Your task to perform on an android device: turn off smart reply in the gmail app Image 0: 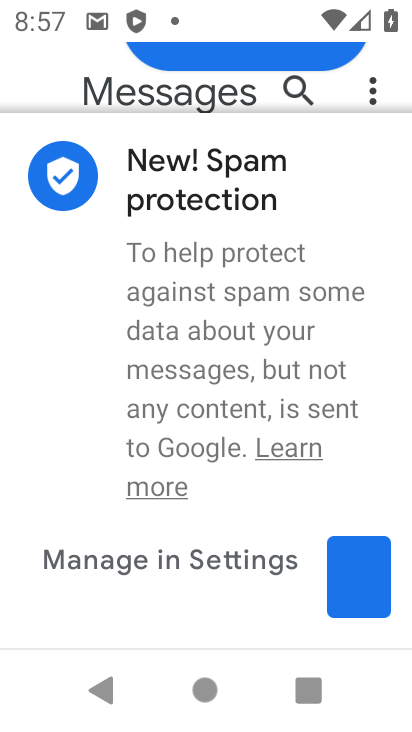
Step 0: press home button
Your task to perform on an android device: turn off smart reply in the gmail app Image 1: 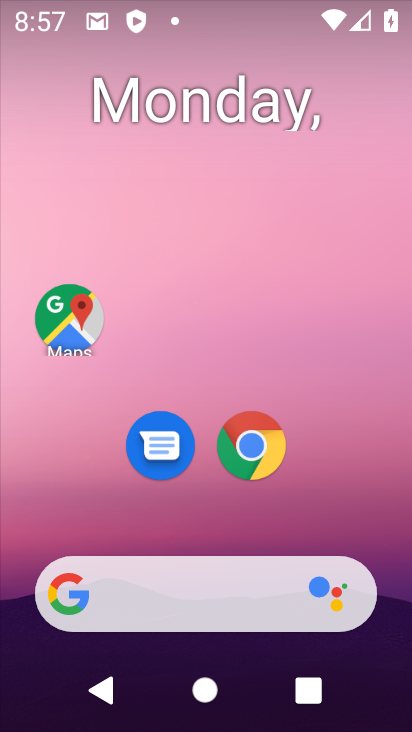
Step 1: drag from (243, 633) to (194, 32)
Your task to perform on an android device: turn off smart reply in the gmail app Image 2: 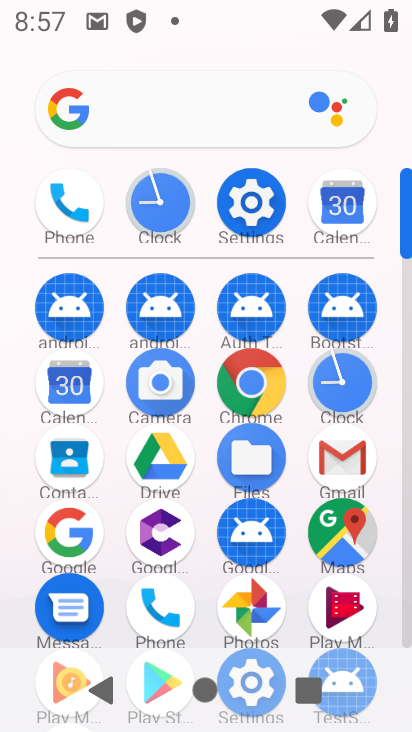
Step 2: click (348, 458)
Your task to perform on an android device: turn off smart reply in the gmail app Image 3: 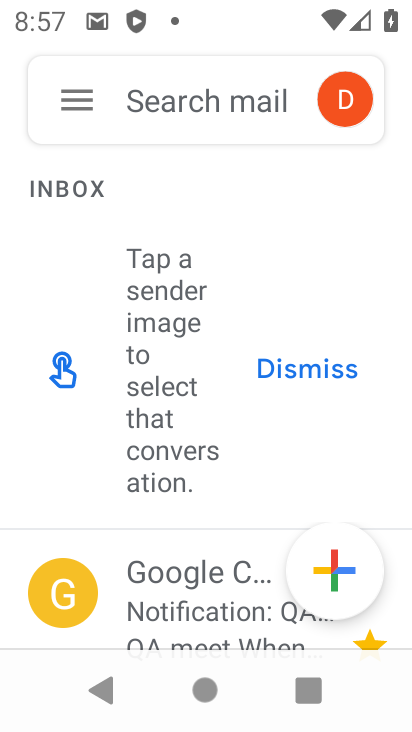
Step 3: click (72, 96)
Your task to perform on an android device: turn off smart reply in the gmail app Image 4: 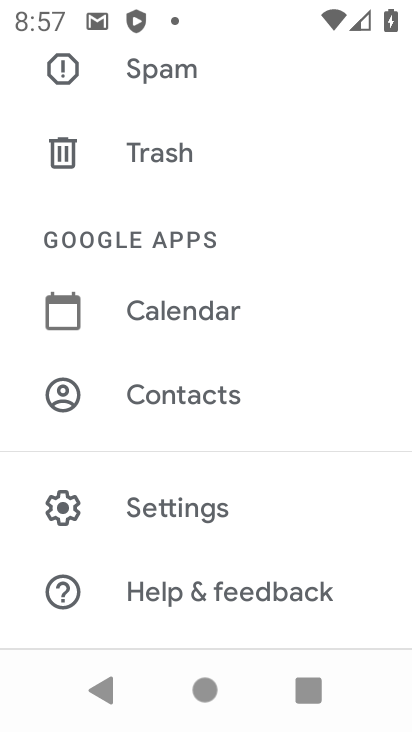
Step 4: click (237, 514)
Your task to perform on an android device: turn off smart reply in the gmail app Image 5: 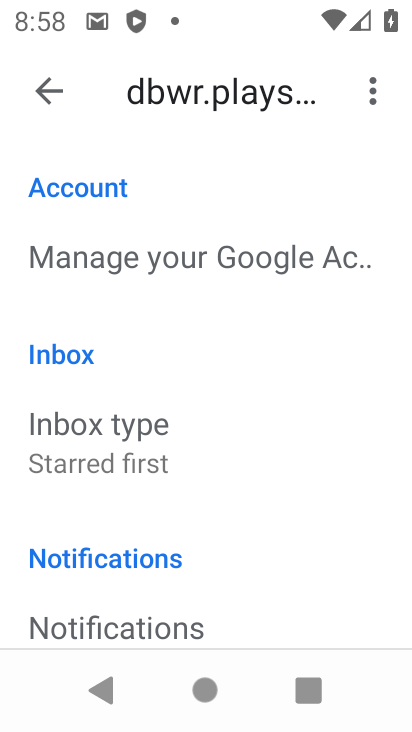
Step 5: drag from (251, 566) to (270, 18)
Your task to perform on an android device: turn off smart reply in the gmail app Image 6: 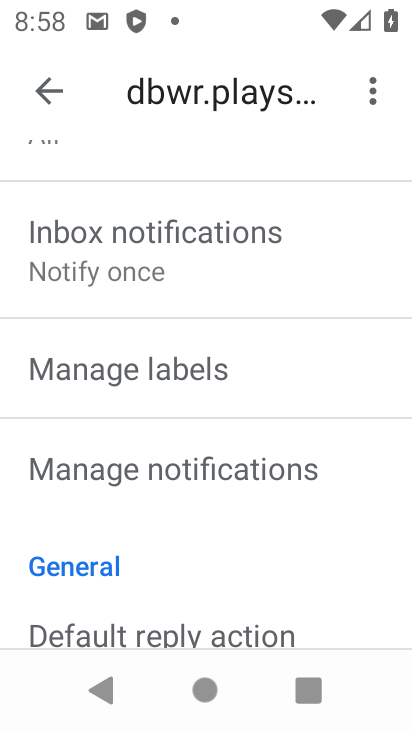
Step 6: drag from (247, 572) to (322, 38)
Your task to perform on an android device: turn off smart reply in the gmail app Image 7: 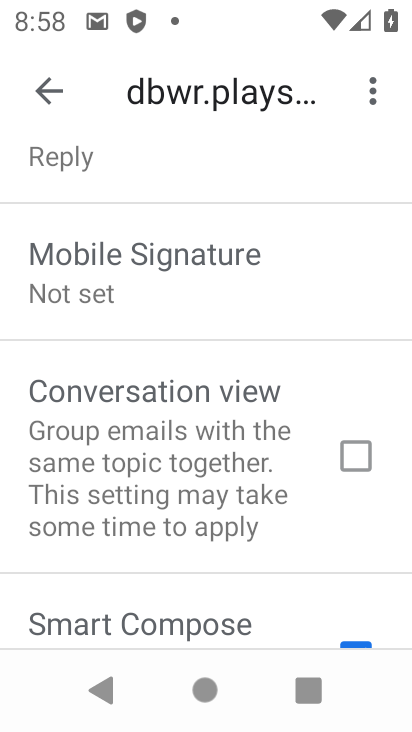
Step 7: drag from (171, 576) to (199, 135)
Your task to perform on an android device: turn off smart reply in the gmail app Image 8: 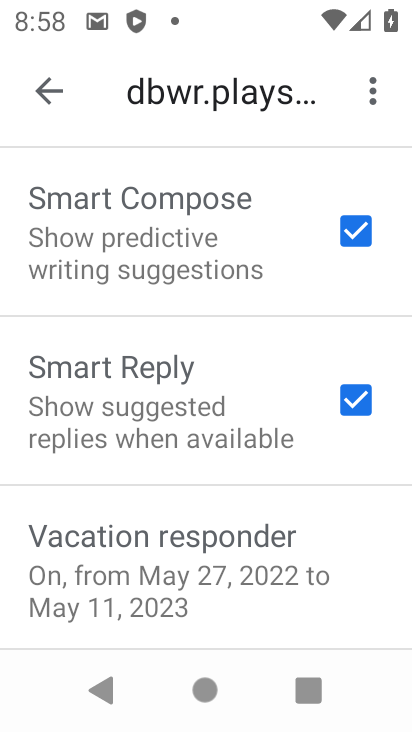
Step 8: click (356, 403)
Your task to perform on an android device: turn off smart reply in the gmail app Image 9: 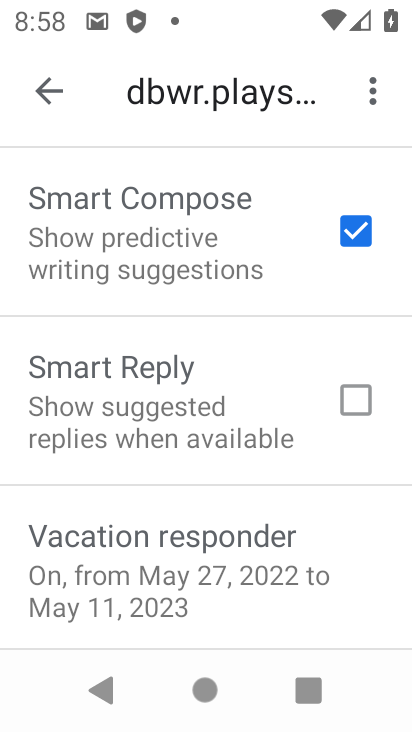
Step 9: task complete